Your task to perform on an android device: set the stopwatch Image 0: 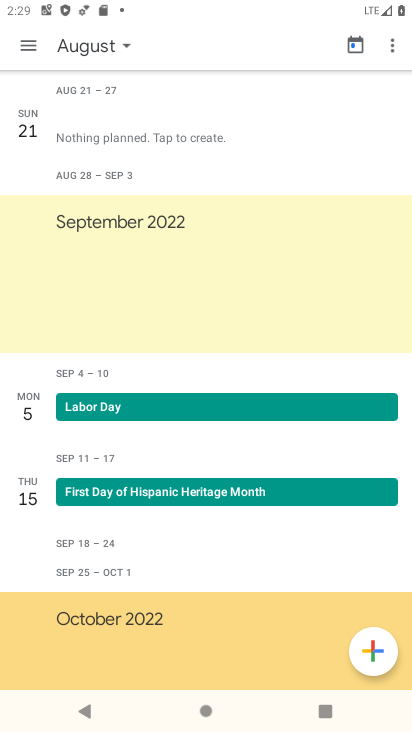
Step 0: press home button
Your task to perform on an android device: set the stopwatch Image 1: 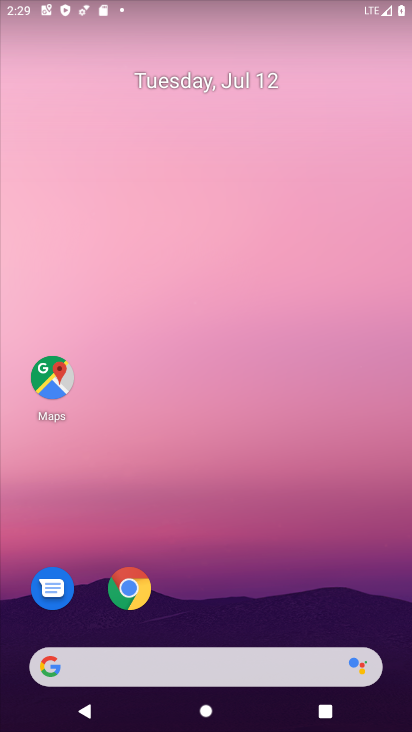
Step 1: drag from (258, 696) to (252, 118)
Your task to perform on an android device: set the stopwatch Image 2: 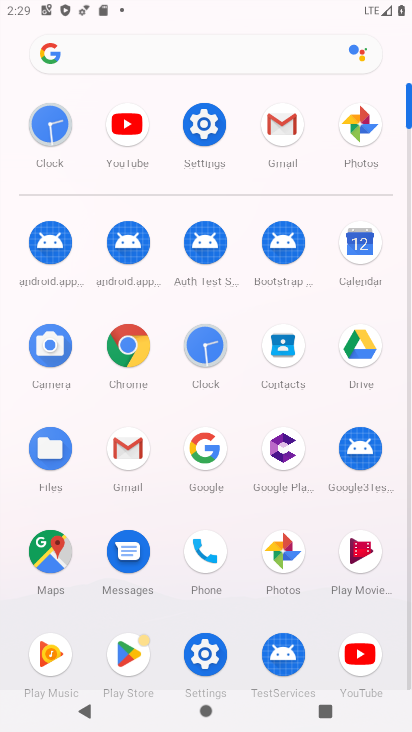
Step 2: click (49, 130)
Your task to perform on an android device: set the stopwatch Image 3: 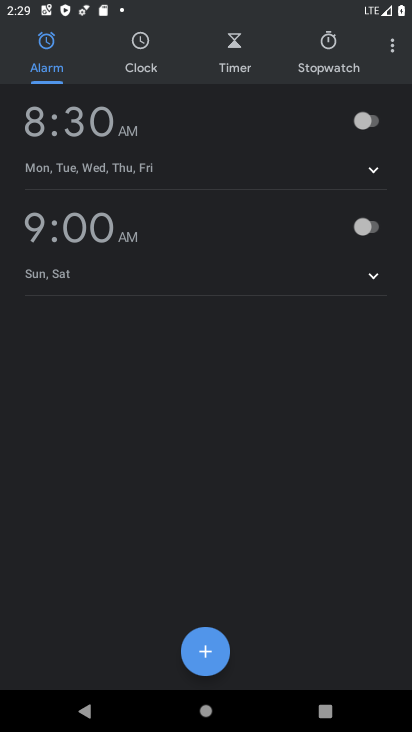
Step 3: click (341, 51)
Your task to perform on an android device: set the stopwatch Image 4: 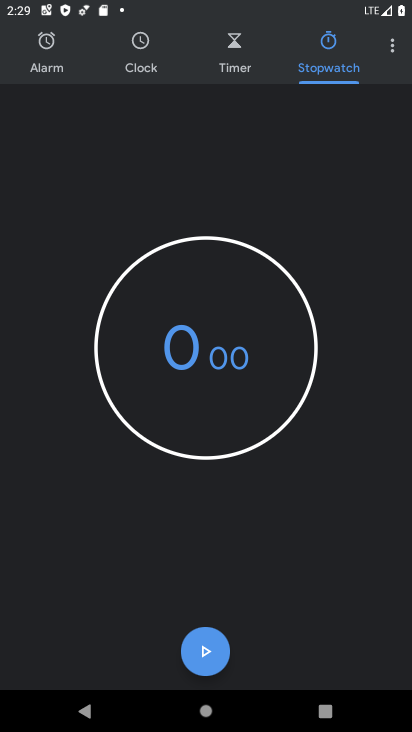
Step 4: task complete